Your task to perform on an android device: Show the shopping cart on amazon.com. Image 0: 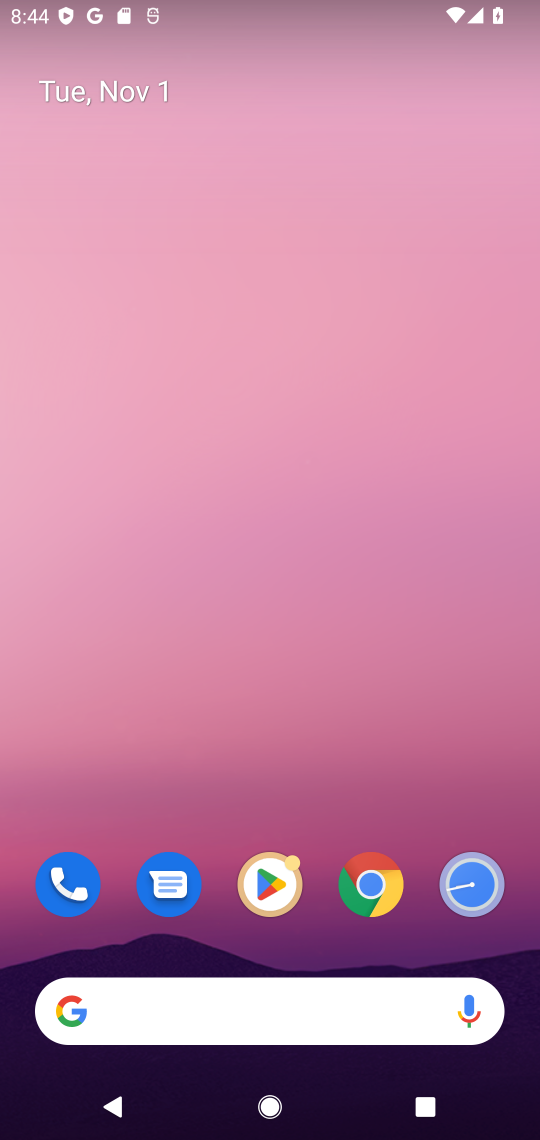
Step 0: click (363, 890)
Your task to perform on an android device: Show the shopping cart on amazon.com. Image 1: 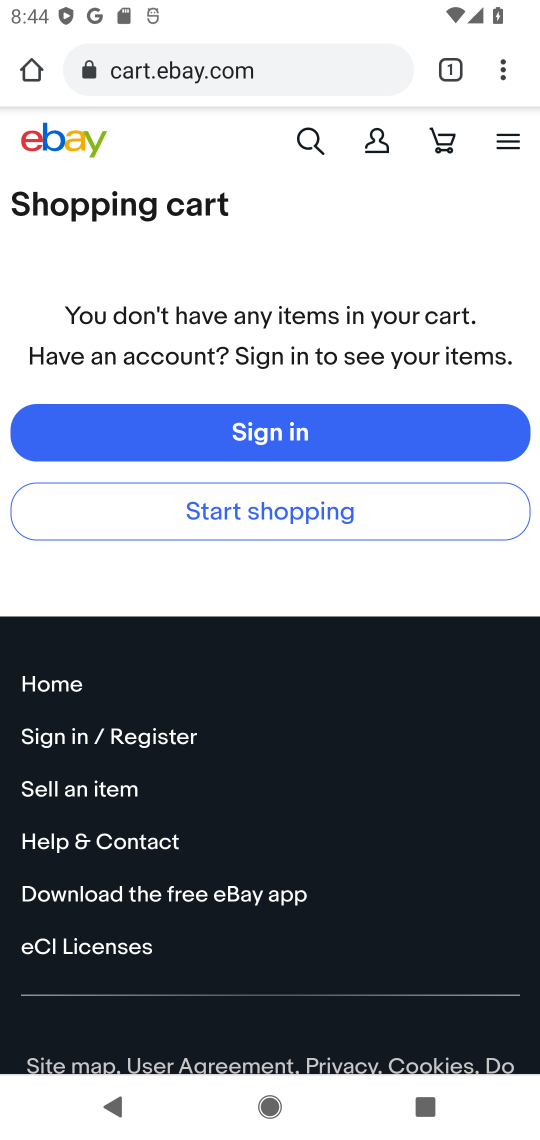
Step 1: click (309, 56)
Your task to perform on an android device: Show the shopping cart on amazon.com. Image 2: 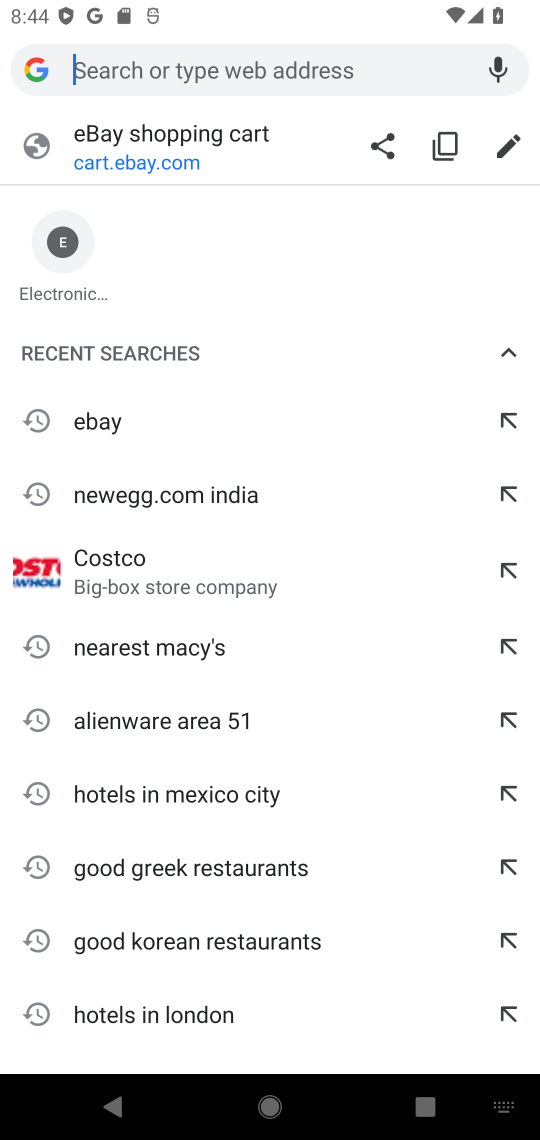
Step 2: press enter
Your task to perform on an android device: Show the shopping cart on amazon.com. Image 3: 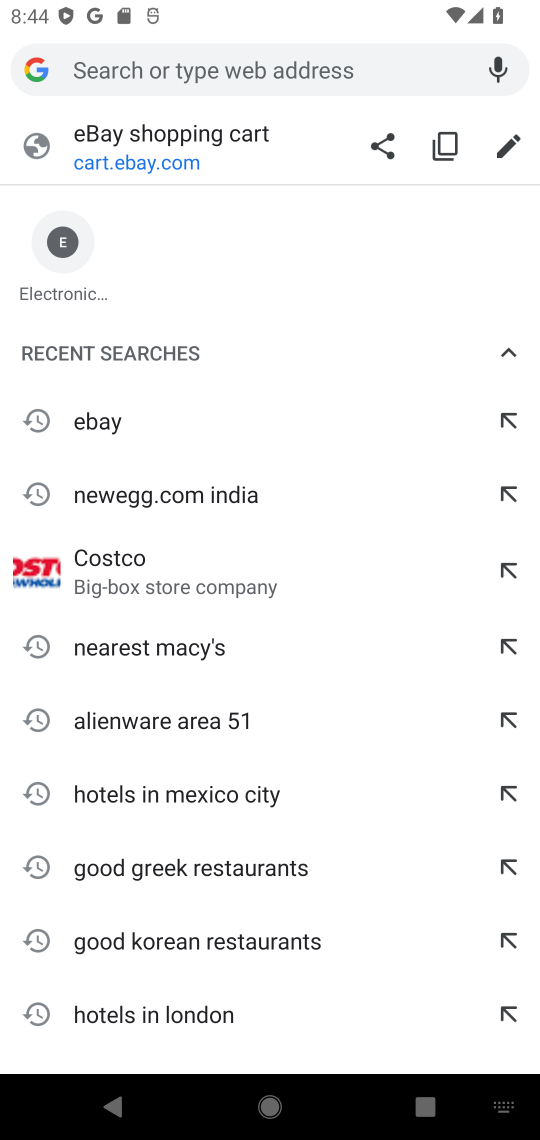
Step 3: type " amazon.com"
Your task to perform on an android device: Show the shopping cart on amazon.com. Image 4: 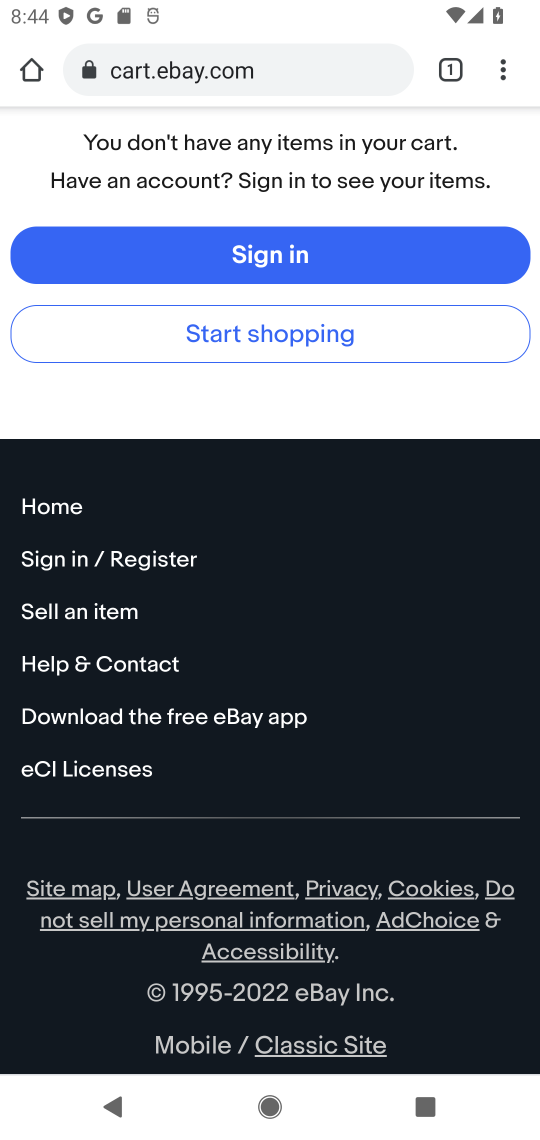
Step 4: click (180, 67)
Your task to perform on an android device: Show the shopping cart on amazon.com. Image 5: 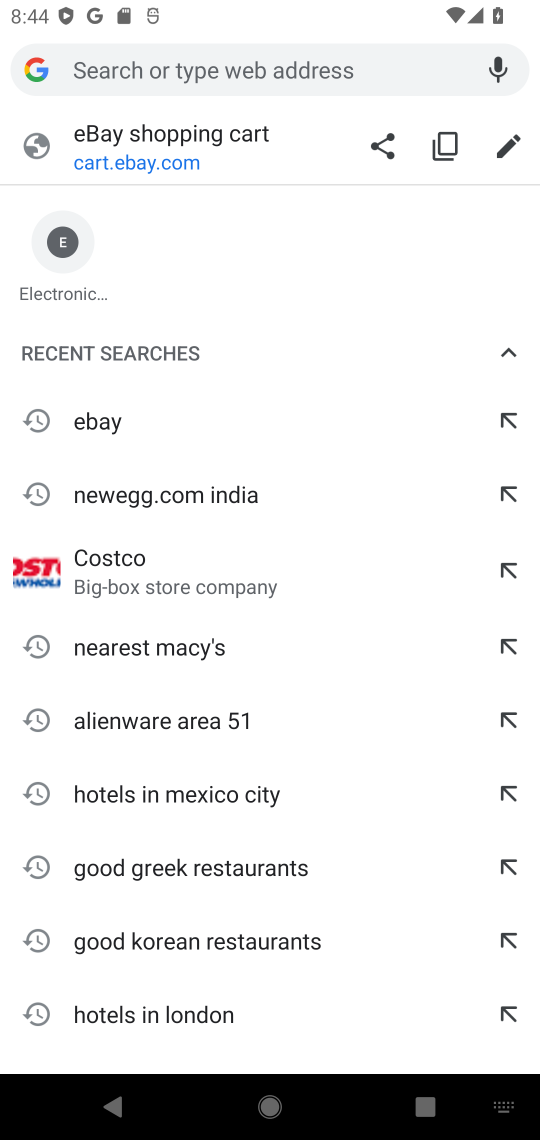
Step 5: press enter
Your task to perform on an android device: Show the shopping cart on amazon.com. Image 6: 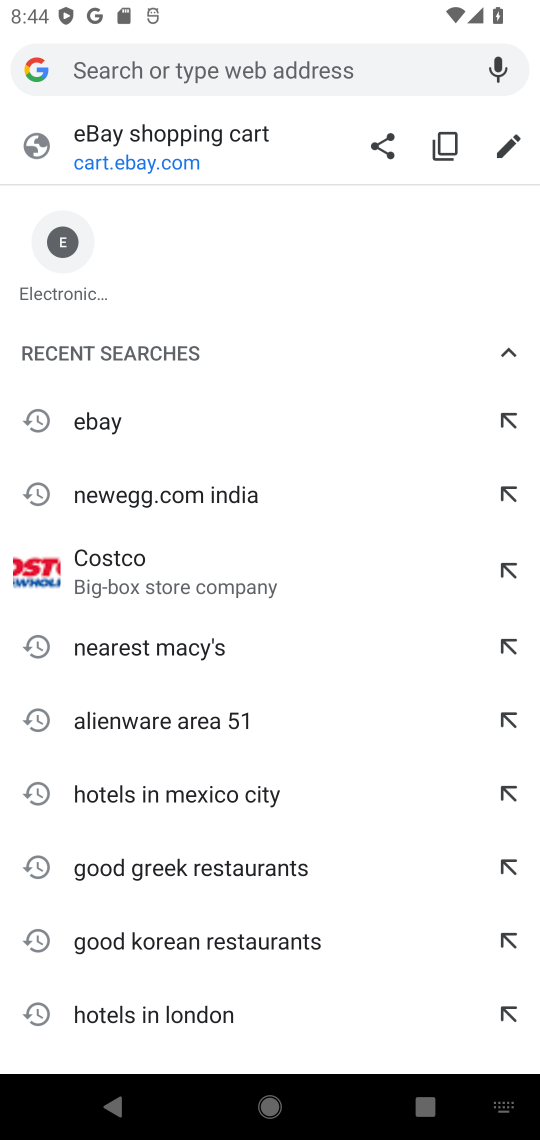
Step 6: type " amazon.com"
Your task to perform on an android device: Show the shopping cart on amazon.com. Image 7: 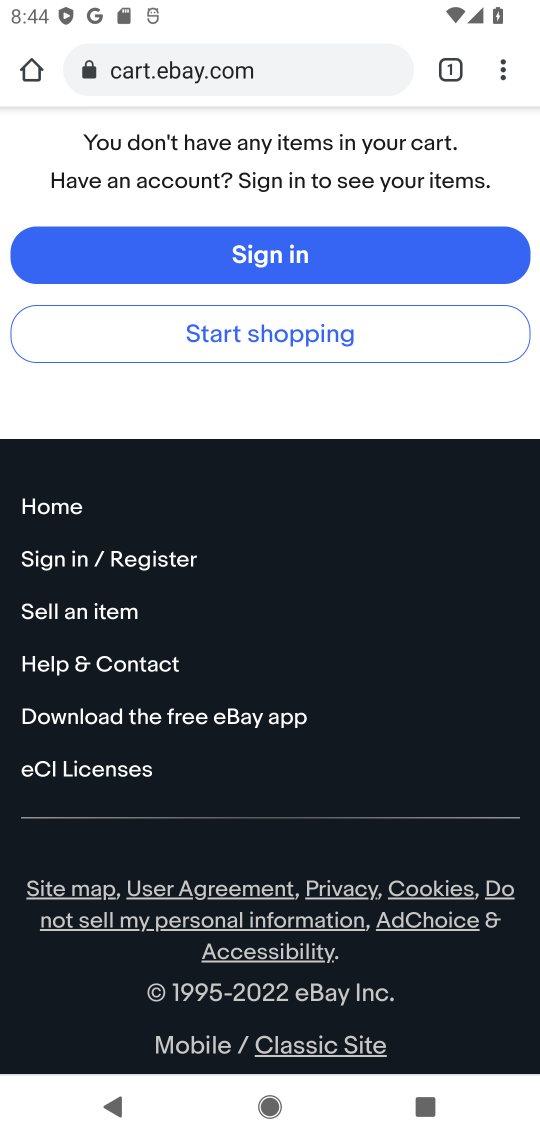
Step 7: click (21, 58)
Your task to perform on an android device: Show the shopping cart on amazon.com. Image 8: 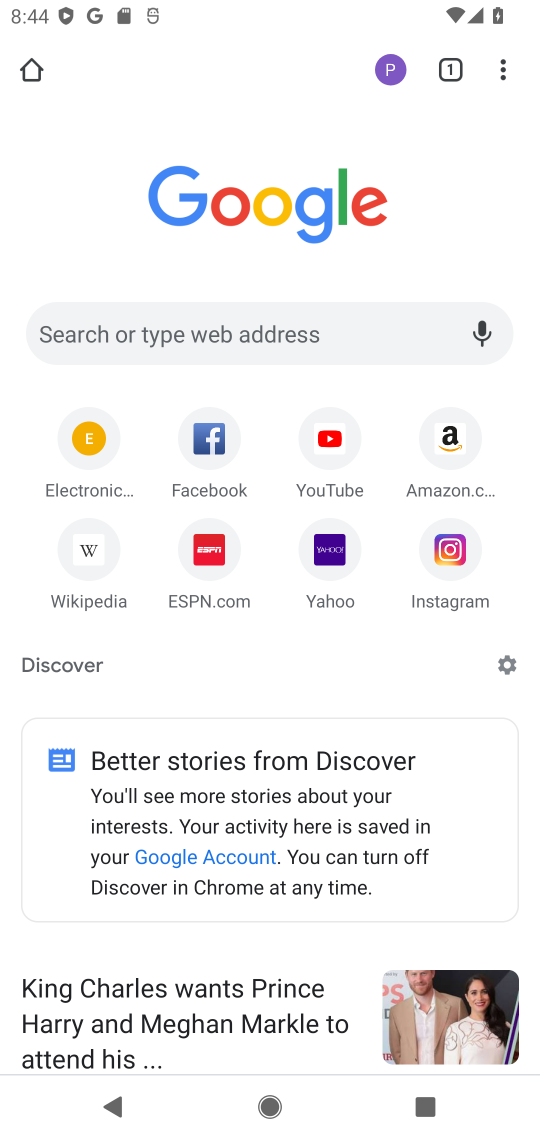
Step 8: click (230, 332)
Your task to perform on an android device: Show the shopping cart on amazon.com. Image 9: 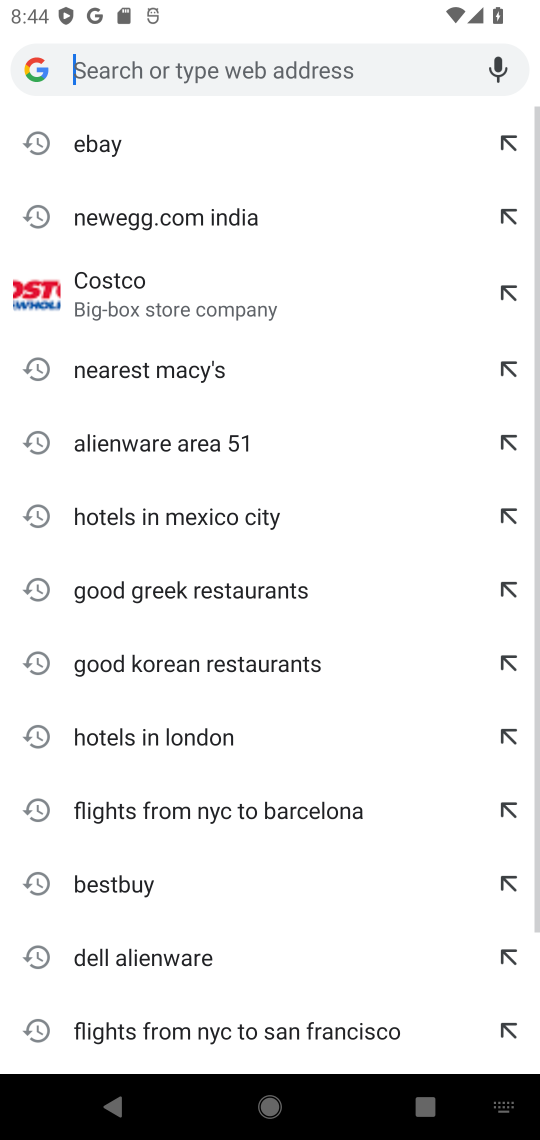
Step 9: press enter
Your task to perform on an android device: Show the shopping cart on amazon.com. Image 10: 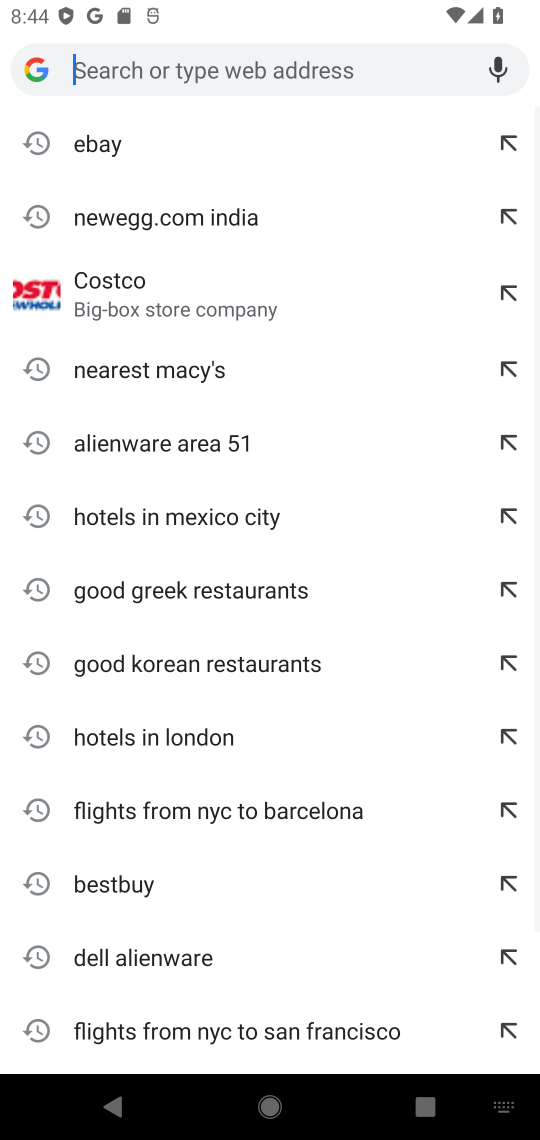
Step 10: type " amazon.com"
Your task to perform on an android device: Show the shopping cart on amazon.com. Image 11: 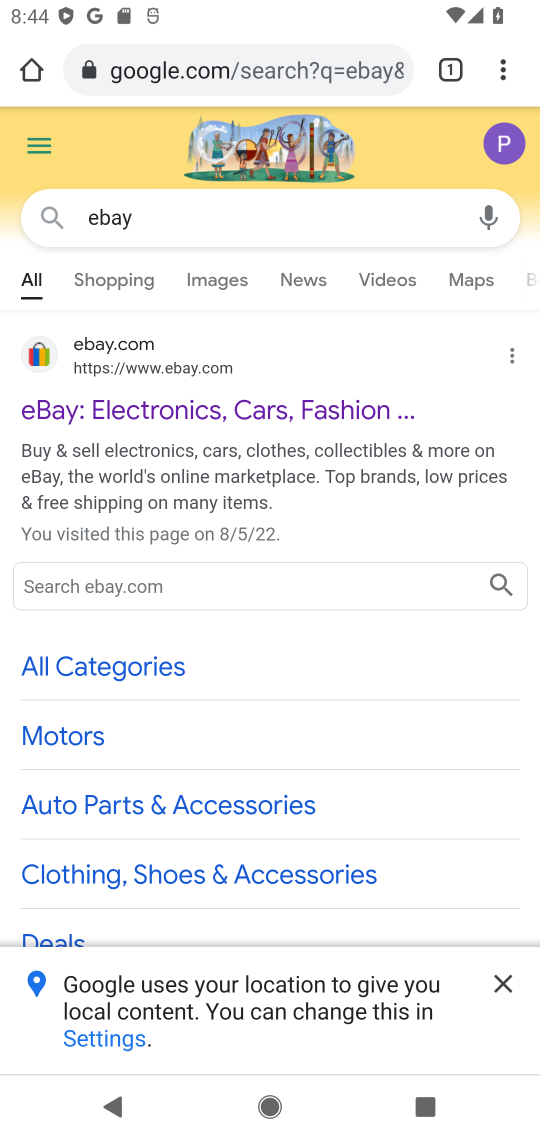
Step 11: click (350, 79)
Your task to perform on an android device: Show the shopping cart on amazon.com. Image 12: 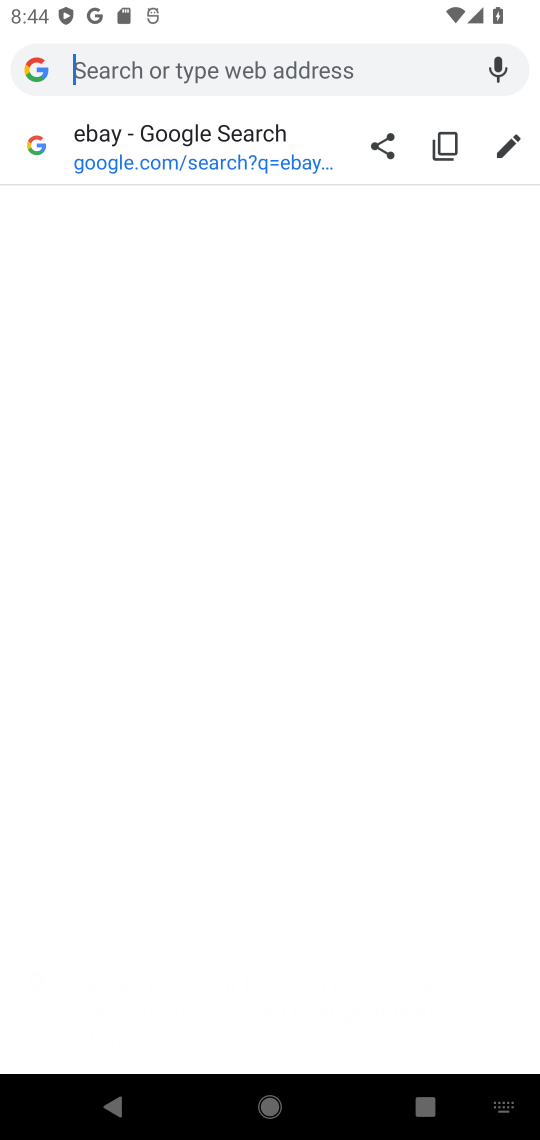
Step 12: press enter
Your task to perform on an android device: Show the shopping cart on amazon.com. Image 13: 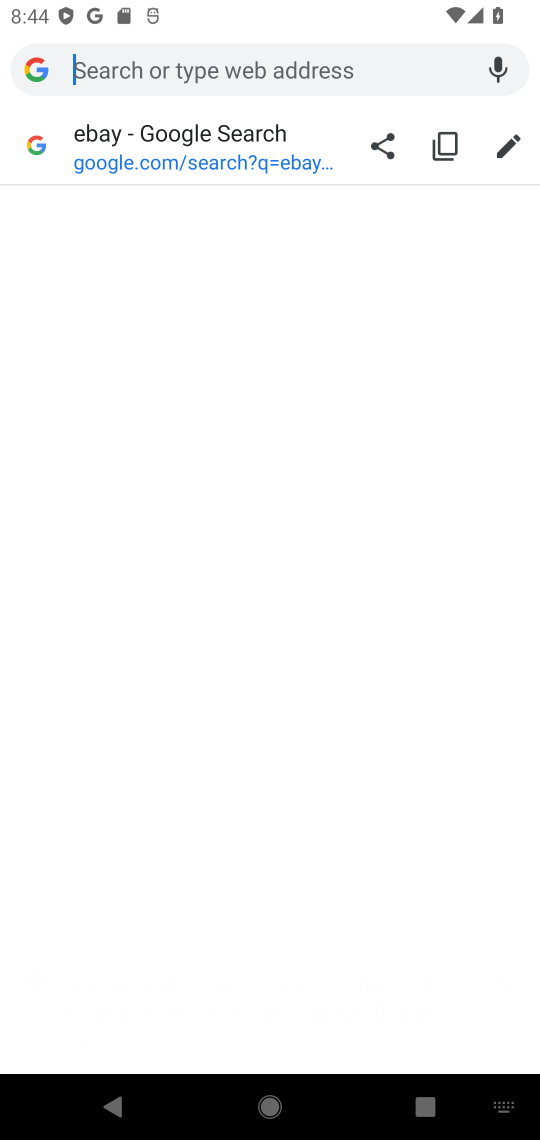
Step 13: type " amazon.com"
Your task to perform on an android device: Show the shopping cart on amazon.com. Image 14: 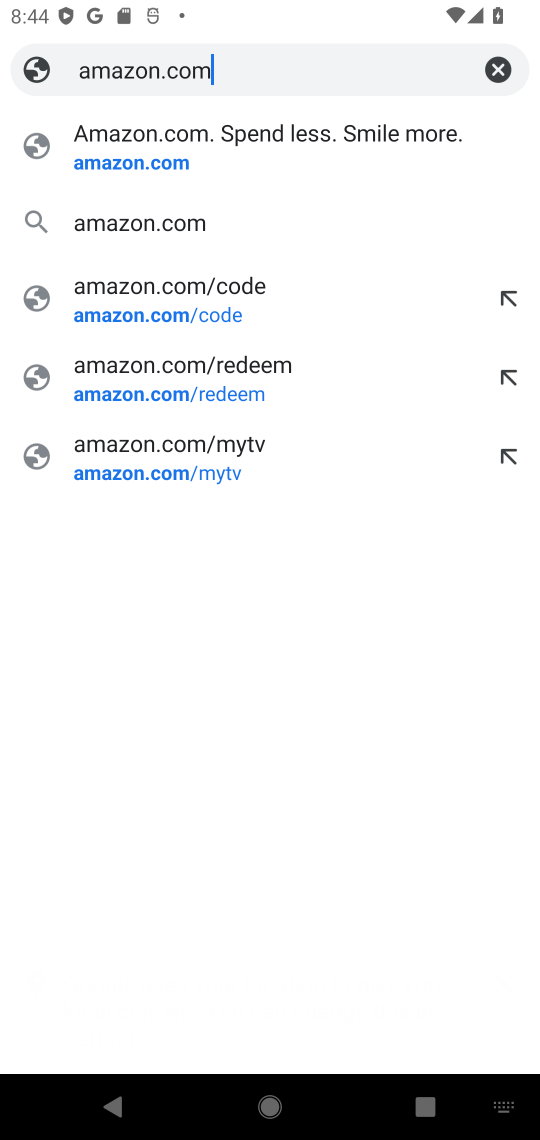
Step 14: click (170, 217)
Your task to perform on an android device: Show the shopping cart on amazon.com. Image 15: 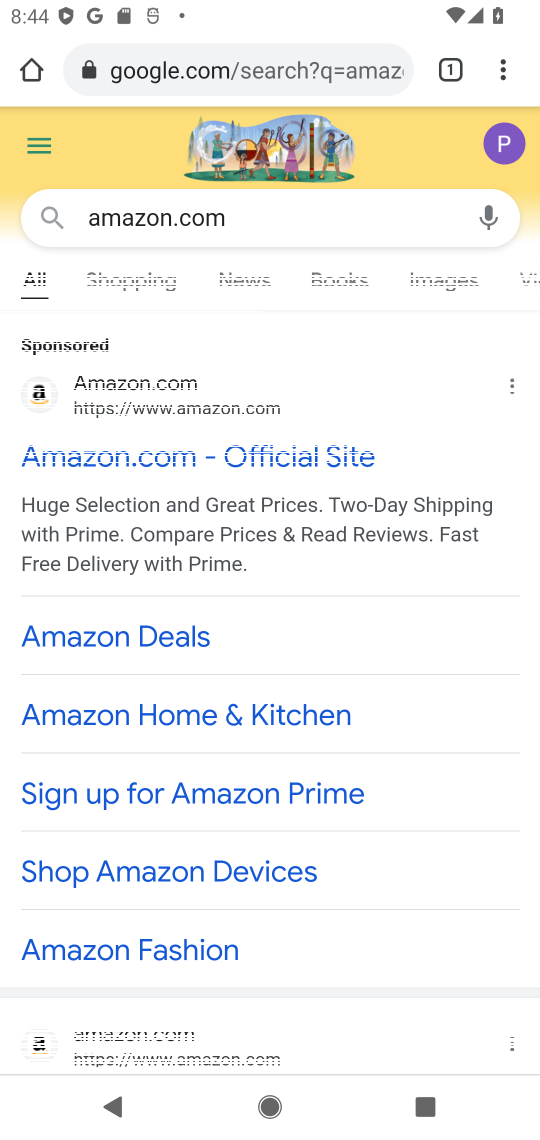
Step 15: drag from (274, 861) to (312, 428)
Your task to perform on an android device: Show the shopping cart on amazon.com. Image 16: 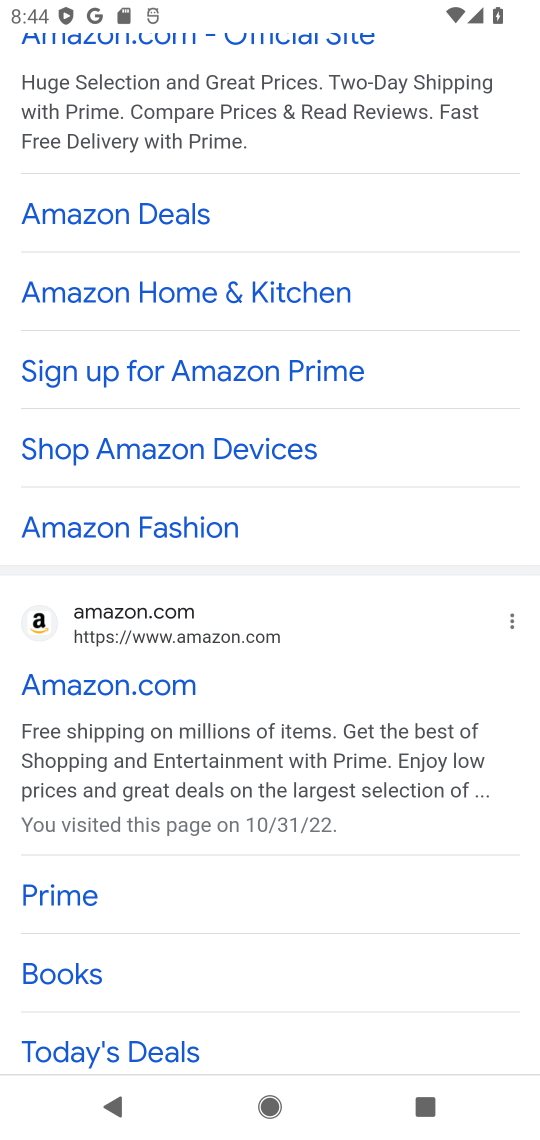
Step 16: click (119, 684)
Your task to perform on an android device: Show the shopping cart on amazon.com. Image 17: 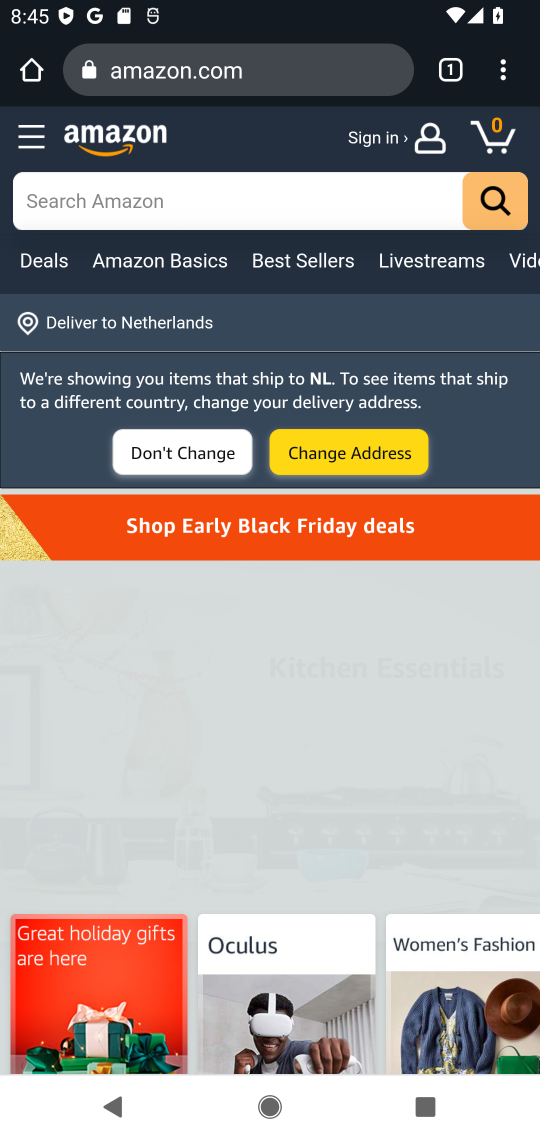
Step 17: click (491, 135)
Your task to perform on an android device: Show the shopping cart on amazon.com. Image 18: 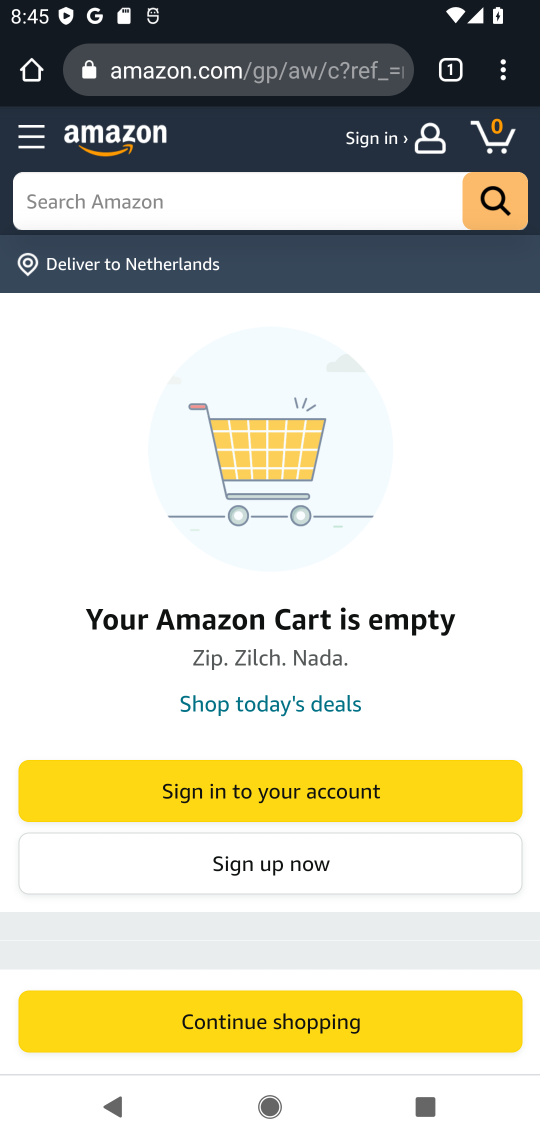
Step 18: click (500, 211)
Your task to perform on an android device: Show the shopping cart on amazon.com. Image 19: 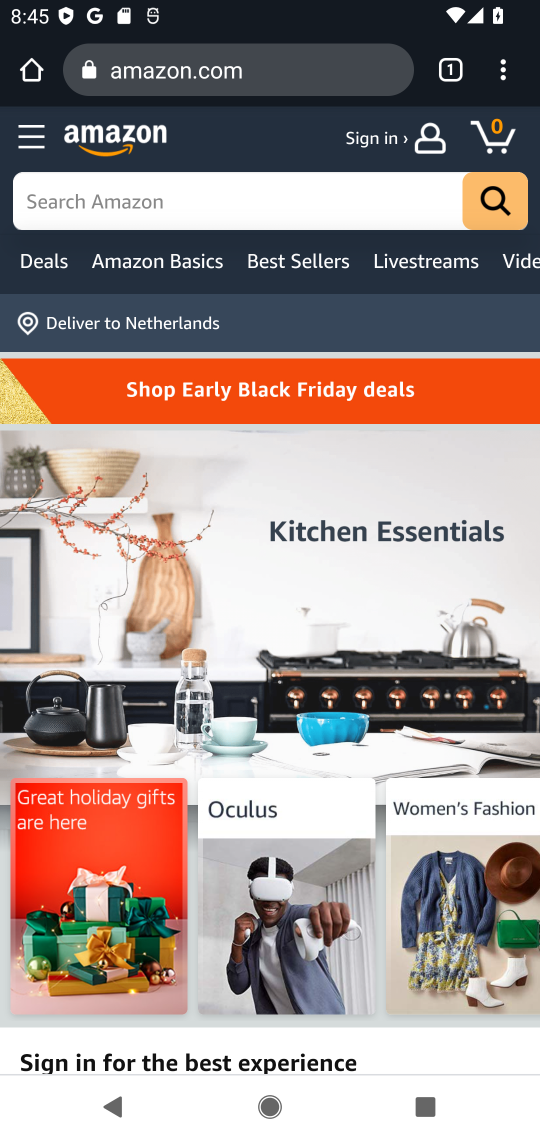
Step 19: task complete